Your task to perform on an android device: turn off priority inbox in the gmail app Image 0: 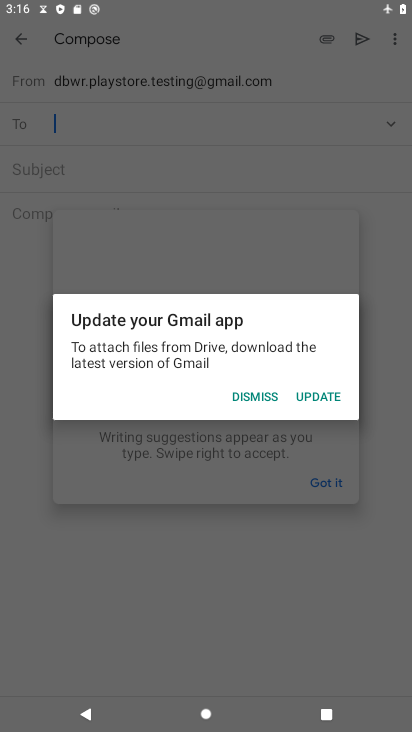
Step 0: press home button
Your task to perform on an android device: turn off priority inbox in the gmail app Image 1: 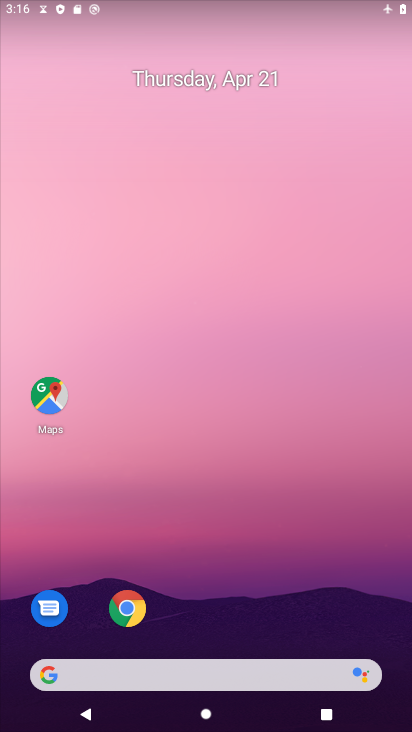
Step 1: drag from (296, 615) to (168, 138)
Your task to perform on an android device: turn off priority inbox in the gmail app Image 2: 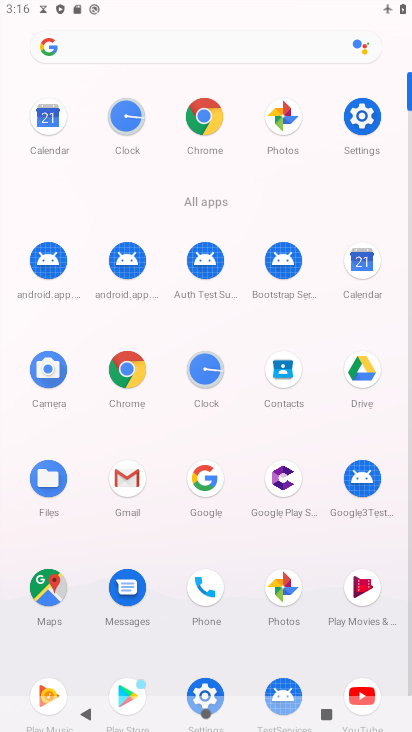
Step 2: click (133, 476)
Your task to perform on an android device: turn off priority inbox in the gmail app Image 3: 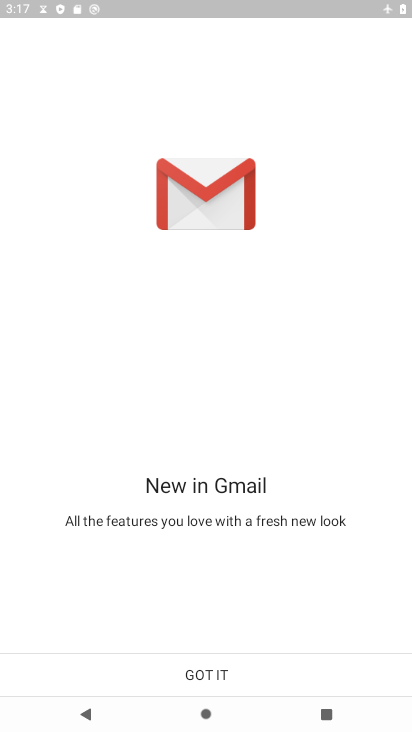
Step 3: click (232, 666)
Your task to perform on an android device: turn off priority inbox in the gmail app Image 4: 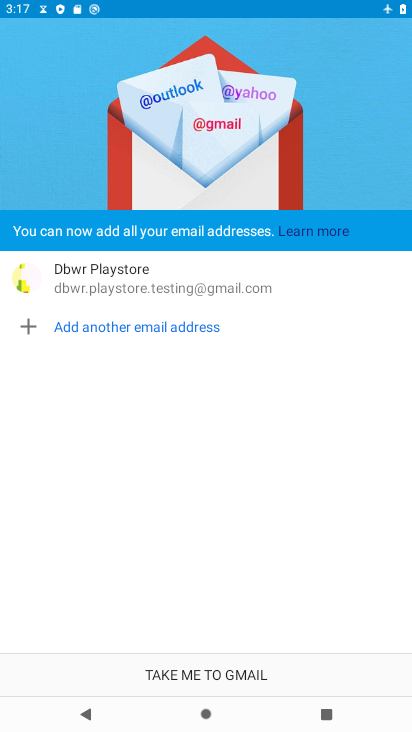
Step 4: click (232, 666)
Your task to perform on an android device: turn off priority inbox in the gmail app Image 5: 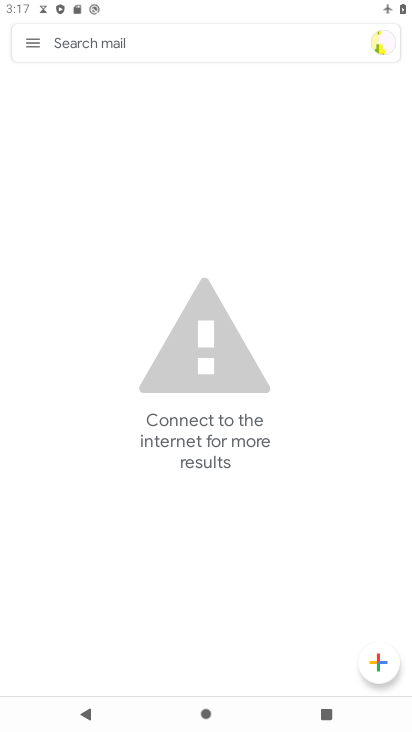
Step 5: click (29, 43)
Your task to perform on an android device: turn off priority inbox in the gmail app Image 6: 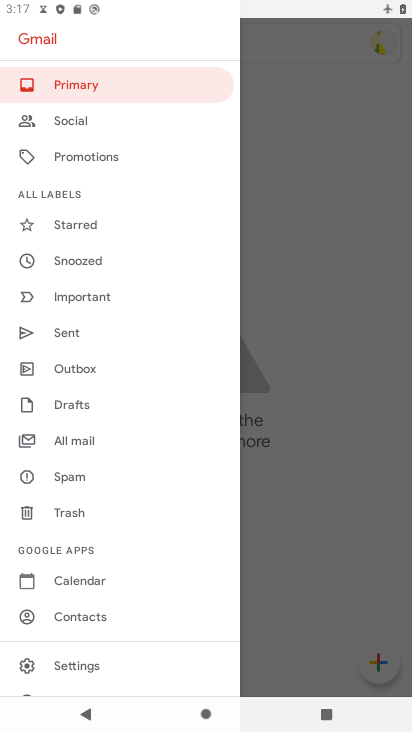
Step 6: click (104, 662)
Your task to perform on an android device: turn off priority inbox in the gmail app Image 7: 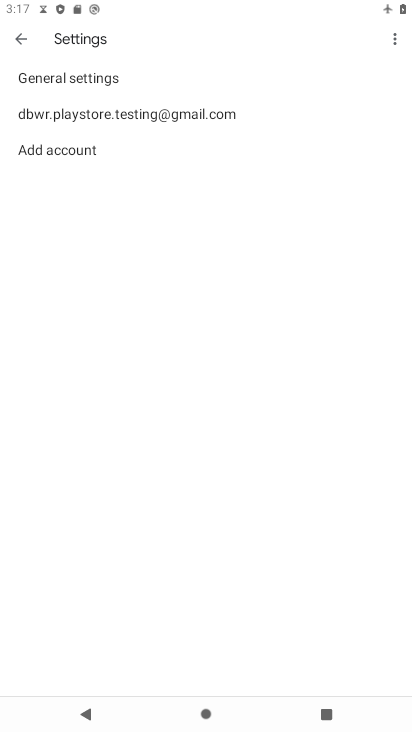
Step 7: click (249, 126)
Your task to perform on an android device: turn off priority inbox in the gmail app Image 8: 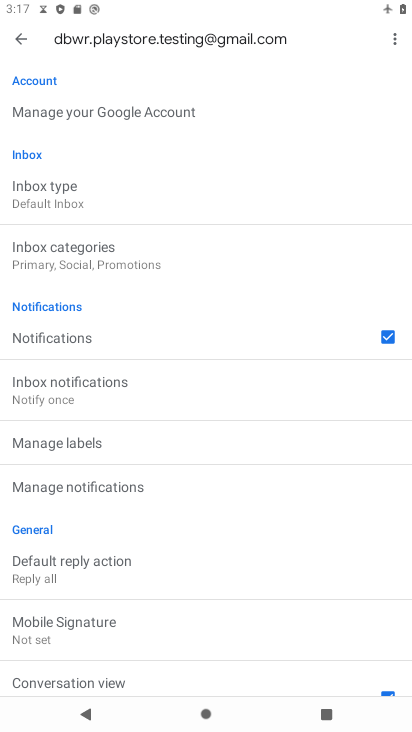
Step 8: click (187, 194)
Your task to perform on an android device: turn off priority inbox in the gmail app Image 9: 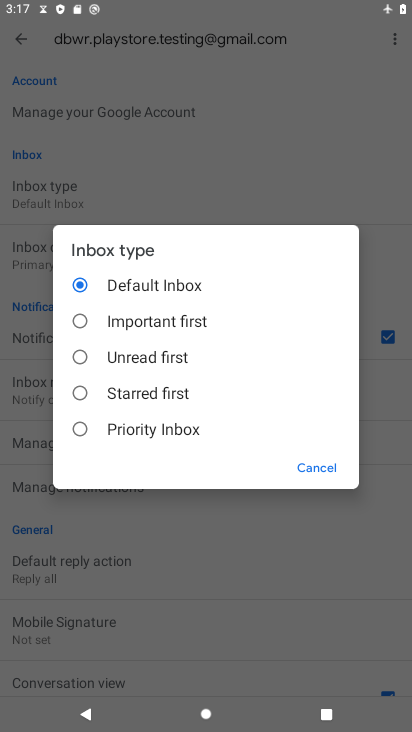
Step 9: task complete